Your task to perform on an android device: Open Amazon Image 0: 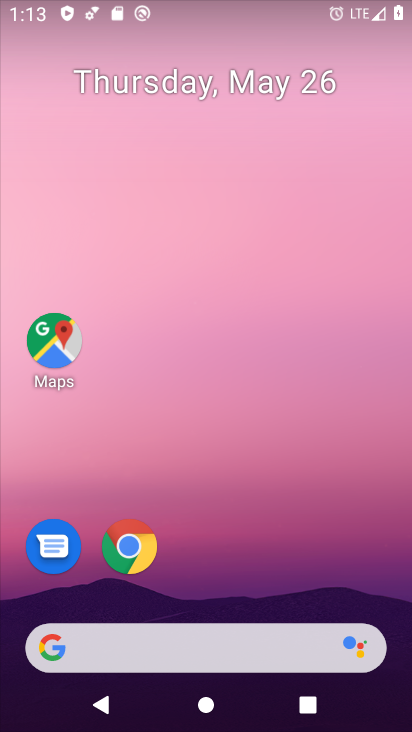
Step 0: drag from (405, 639) to (256, 82)
Your task to perform on an android device: Open Amazon Image 1: 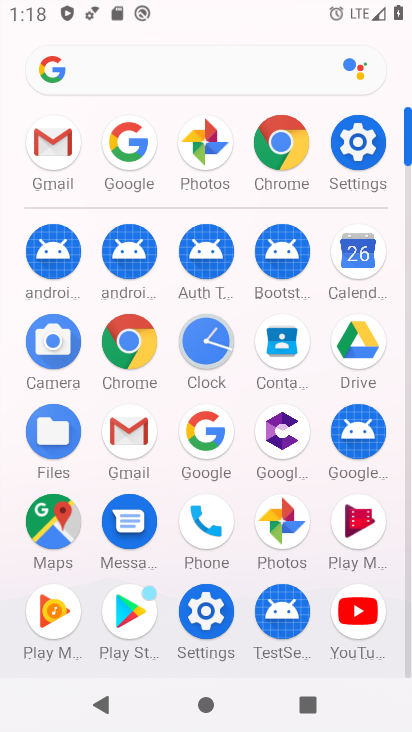
Step 1: click (213, 460)
Your task to perform on an android device: Open Amazon Image 2: 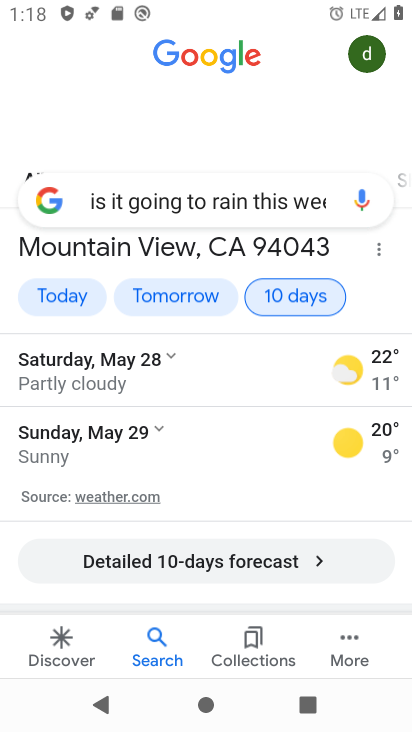
Step 2: press back button
Your task to perform on an android device: Open Amazon Image 3: 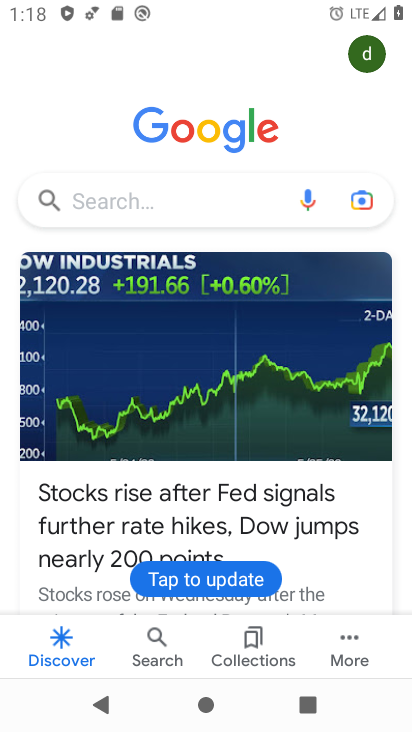
Step 3: click (197, 192)
Your task to perform on an android device: Open Amazon Image 4: 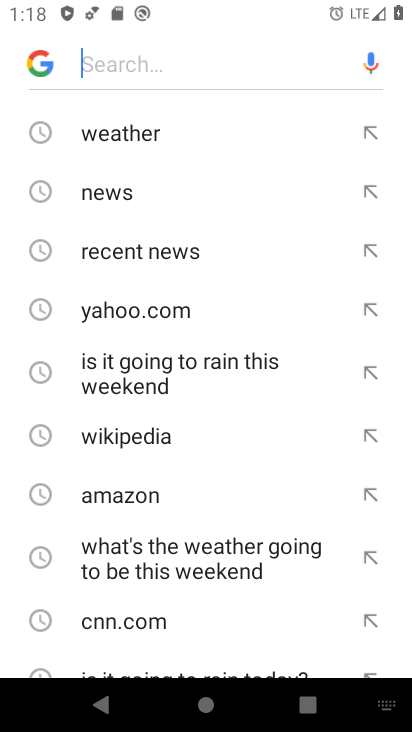
Step 4: click (160, 491)
Your task to perform on an android device: Open Amazon Image 5: 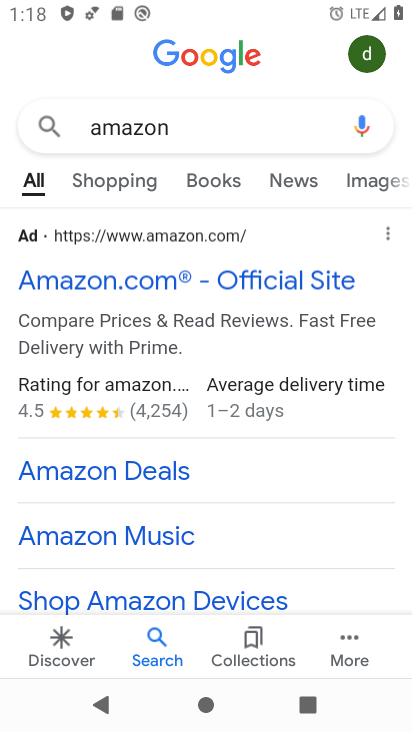
Step 5: task complete